Your task to perform on an android device: open wifi settings Image 0: 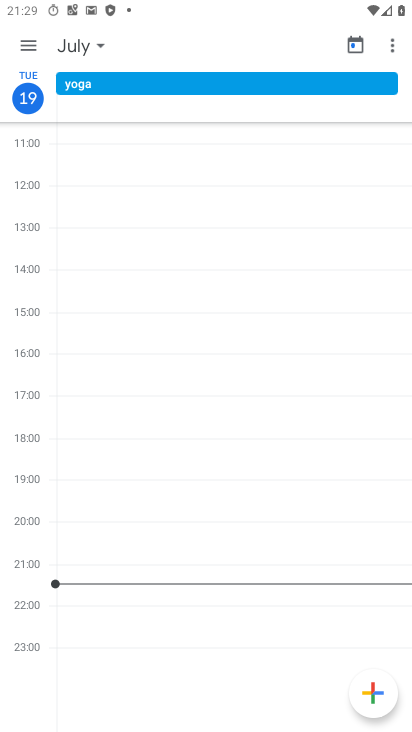
Step 0: press home button
Your task to perform on an android device: open wifi settings Image 1: 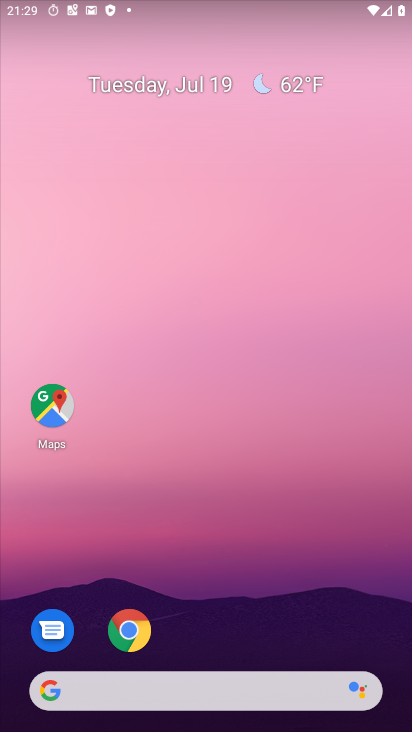
Step 1: drag from (16, 690) to (344, 52)
Your task to perform on an android device: open wifi settings Image 2: 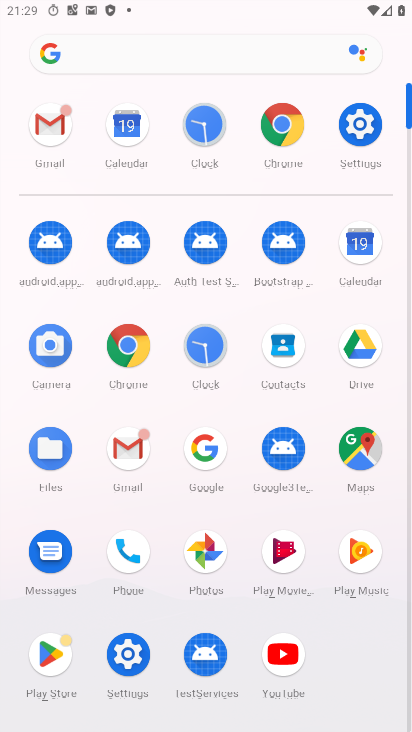
Step 2: click (119, 670)
Your task to perform on an android device: open wifi settings Image 3: 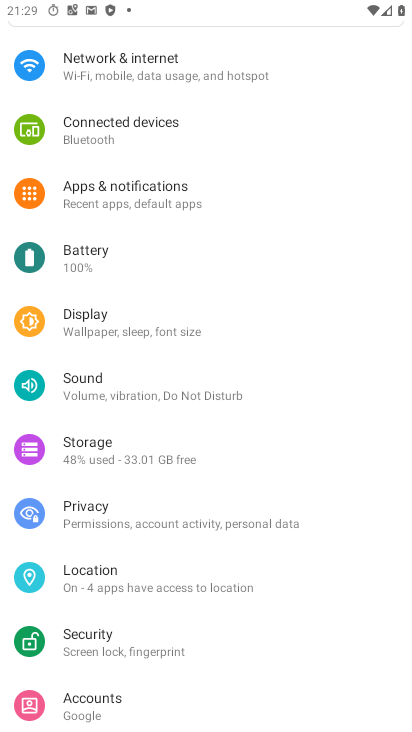
Step 3: click (137, 54)
Your task to perform on an android device: open wifi settings Image 4: 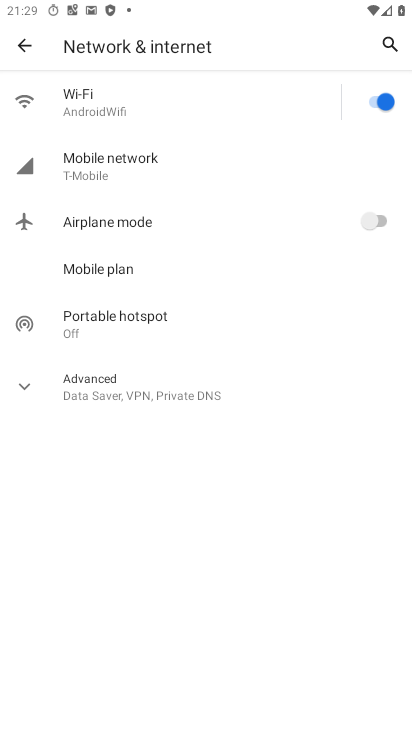
Step 4: task complete